Your task to perform on an android device: Play the last video I watched on Youtube Image 0: 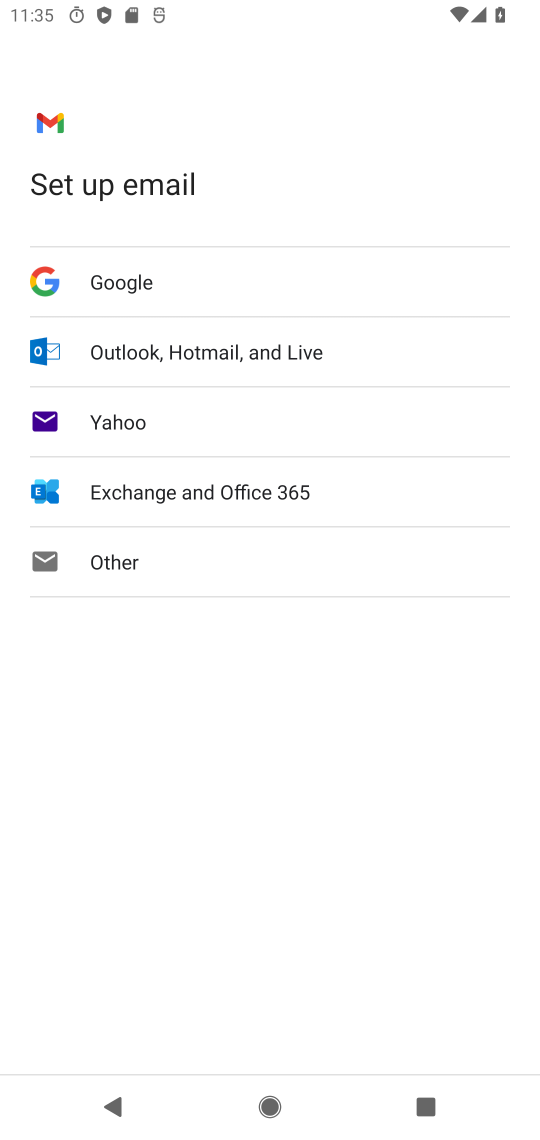
Step 0: press home button
Your task to perform on an android device: Play the last video I watched on Youtube Image 1: 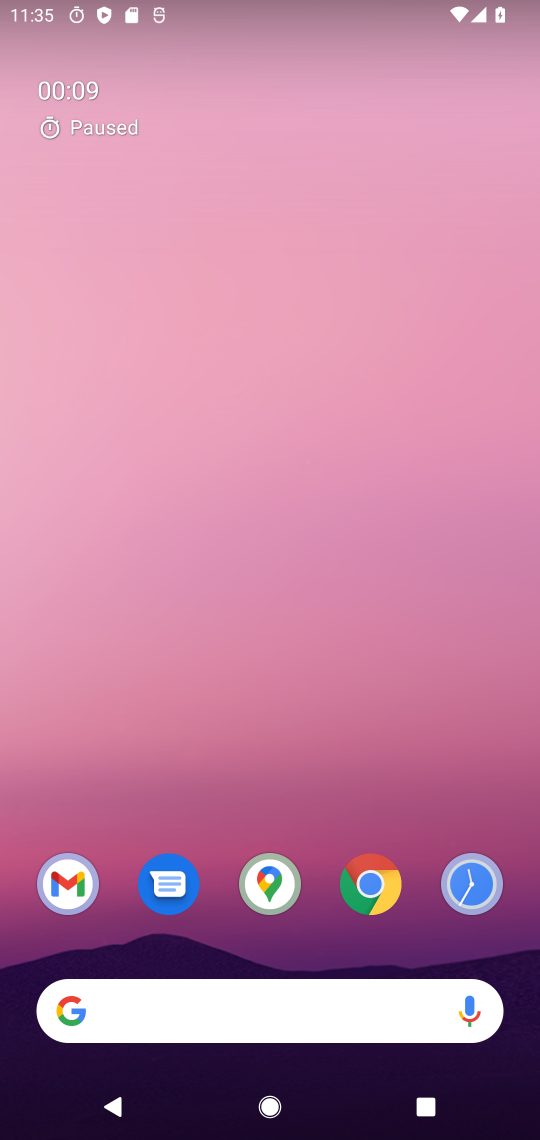
Step 1: drag from (247, 880) to (252, 22)
Your task to perform on an android device: Play the last video I watched on Youtube Image 2: 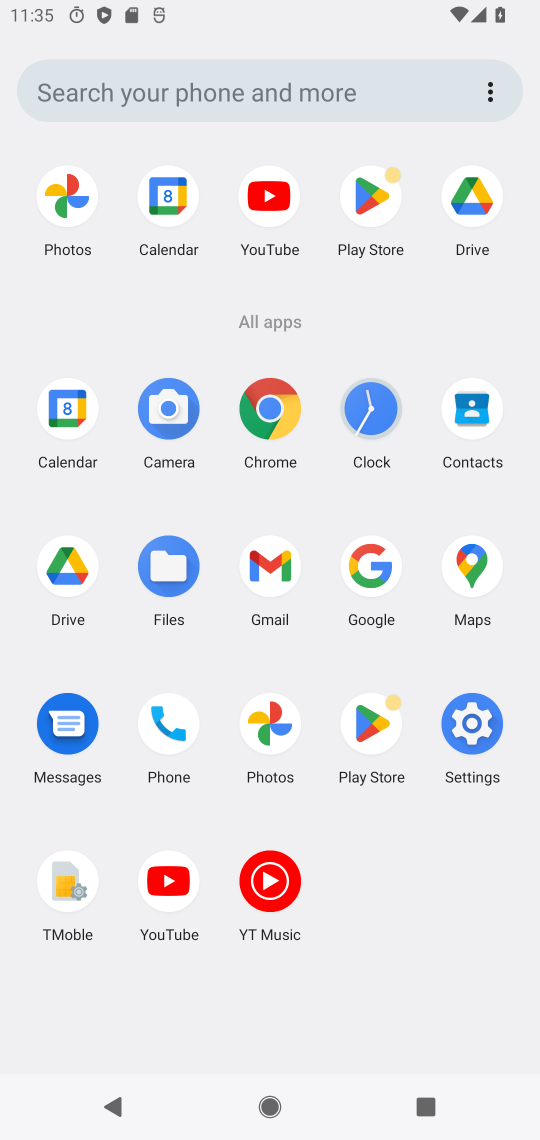
Step 2: click (266, 201)
Your task to perform on an android device: Play the last video I watched on Youtube Image 3: 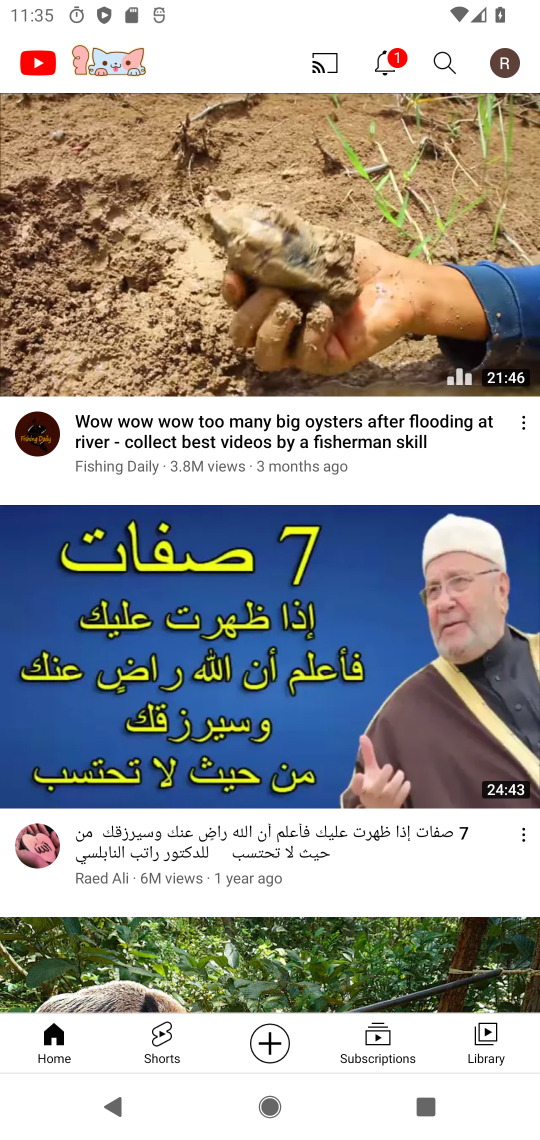
Step 3: click (479, 1047)
Your task to perform on an android device: Play the last video I watched on Youtube Image 4: 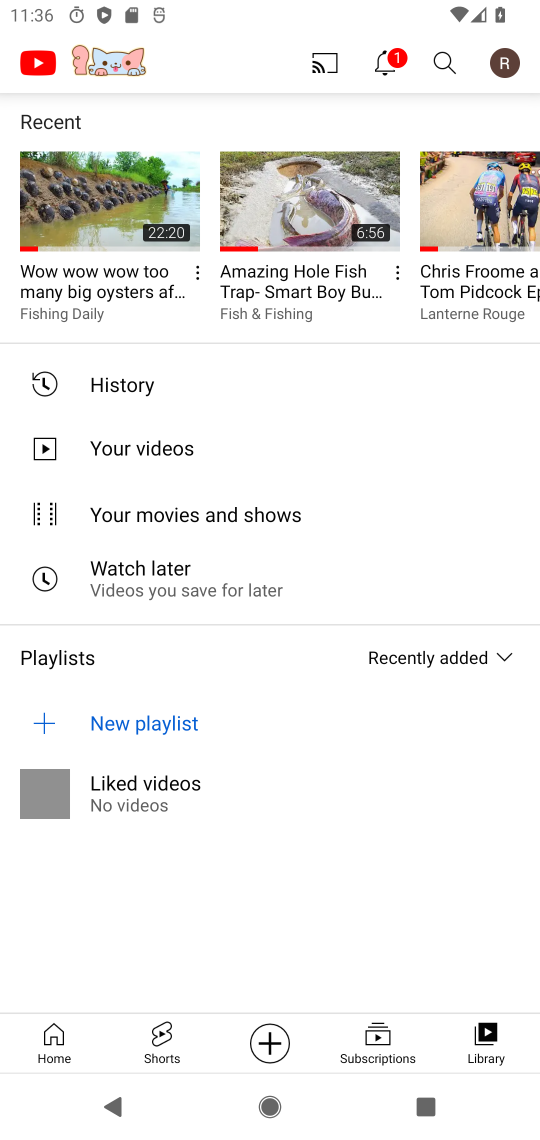
Step 4: task complete